Your task to perform on an android device: Open eBay Image 0: 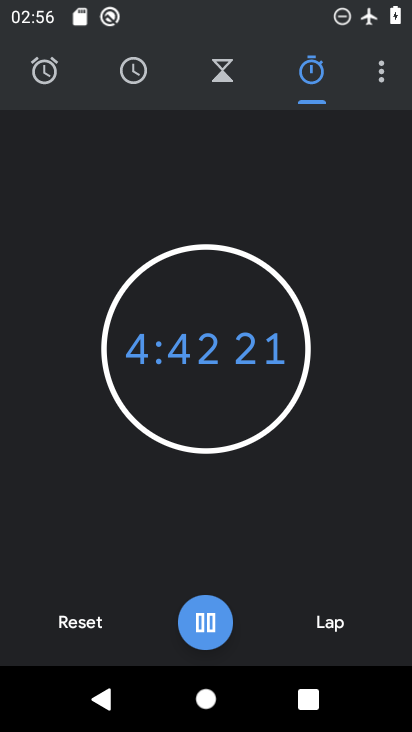
Step 0: press home button
Your task to perform on an android device: Open eBay Image 1: 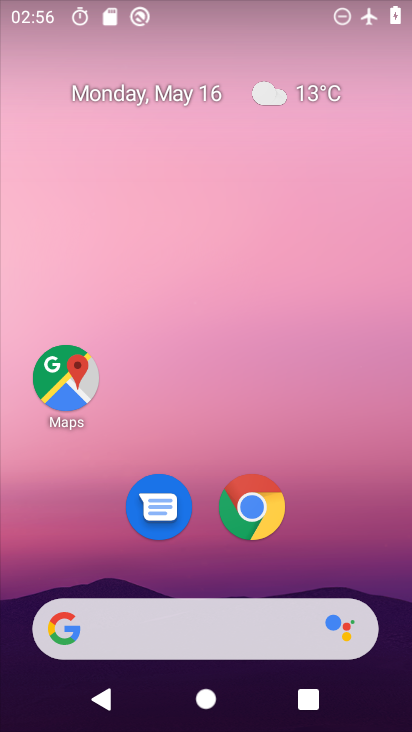
Step 1: click (253, 506)
Your task to perform on an android device: Open eBay Image 2: 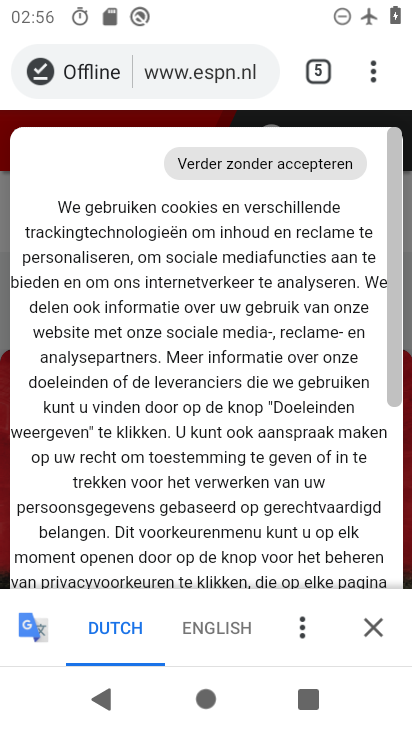
Step 2: click (324, 62)
Your task to perform on an android device: Open eBay Image 3: 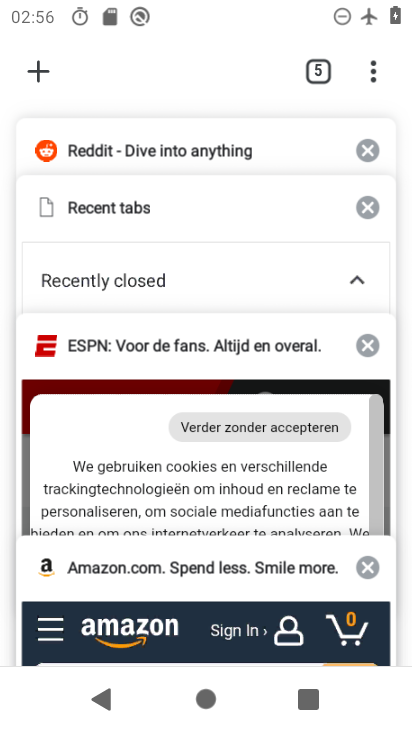
Step 3: click (36, 65)
Your task to perform on an android device: Open eBay Image 4: 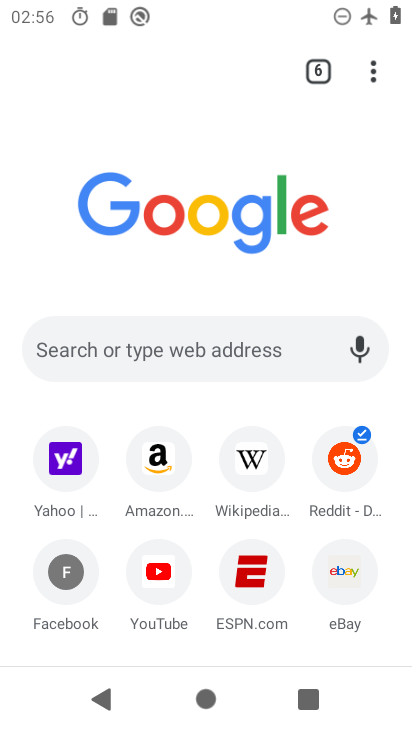
Step 4: click (337, 573)
Your task to perform on an android device: Open eBay Image 5: 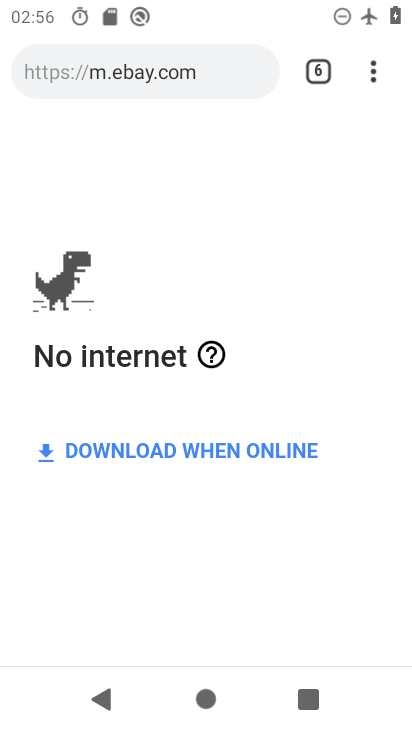
Step 5: task complete